Your task to perform on an android device: Show me recent news Image 0: 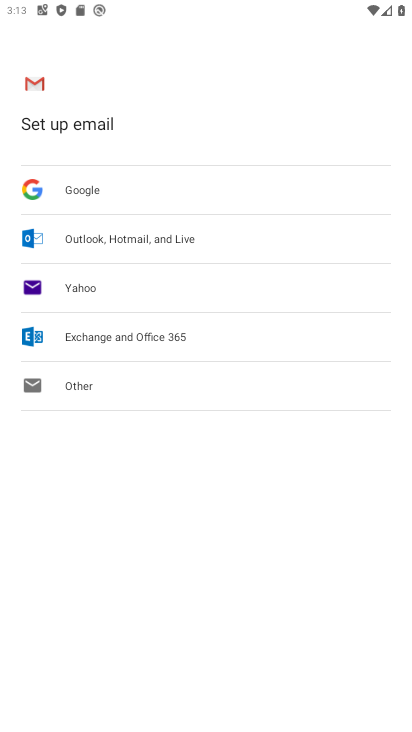
Step 0: press back button
Your task to perform on an android device: Show me recent news Image 1: 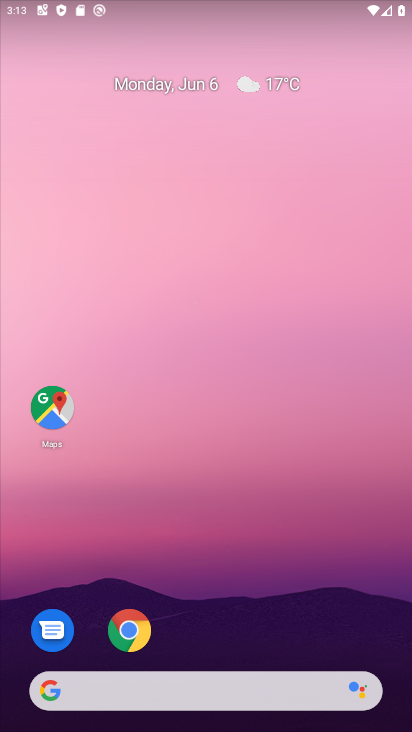
Step 1: click (214, 676)
Your task to perform on an android device: Show me recent news Image 2: 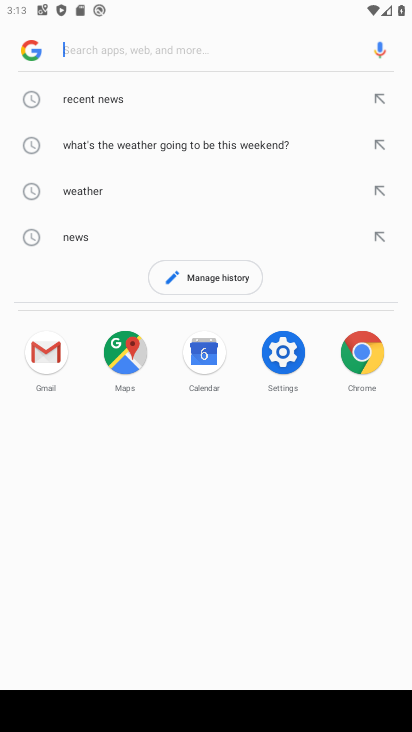
Step 2: click (99, 95)
Your task to perform on an android device: Show me recent news Image 3: 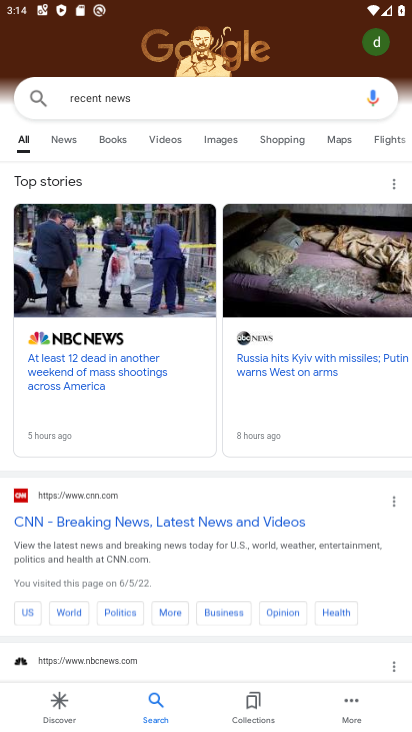
Step 3: task complete